Your task to perform on an android device: Search for pizza restaurants on Maps Image 0: 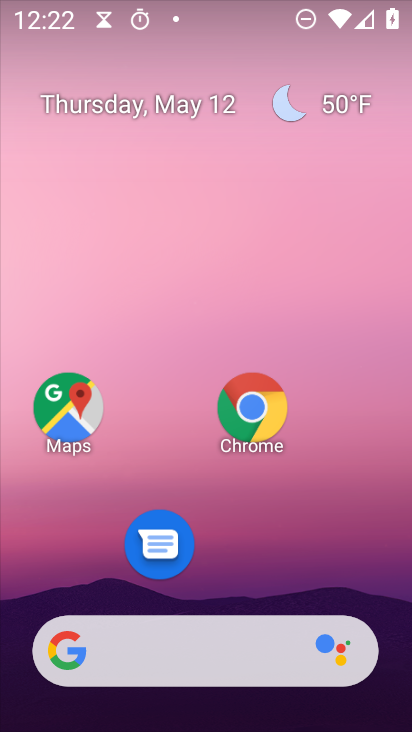
Step 0: click (67, 382)
Your task to perform on an android device: Search for pizza restaurants on Maps Image 1: 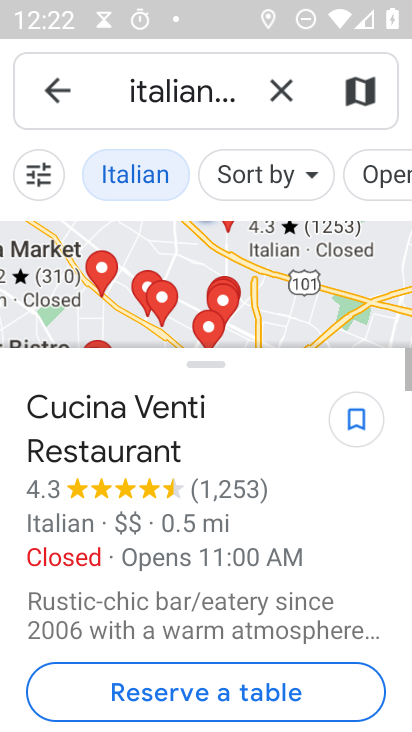
Step 1: click (274, 71)
Your task to perform on an android device: Search for pizza restaurants on Maps Image 2: 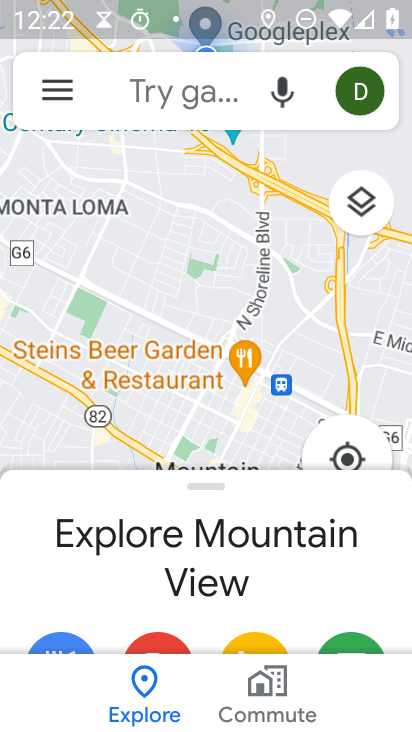
Step 2: click (223, 109)
Your task to perform on an android device: Search for pizza restaurants on Maps Image 3: 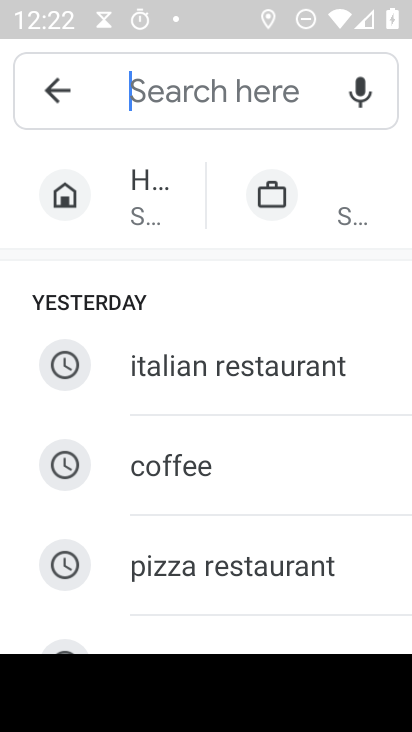
Step 3: click (278, 582)
Your task to perform on an android device: Search for pizza restaurants on Maps Image 4: 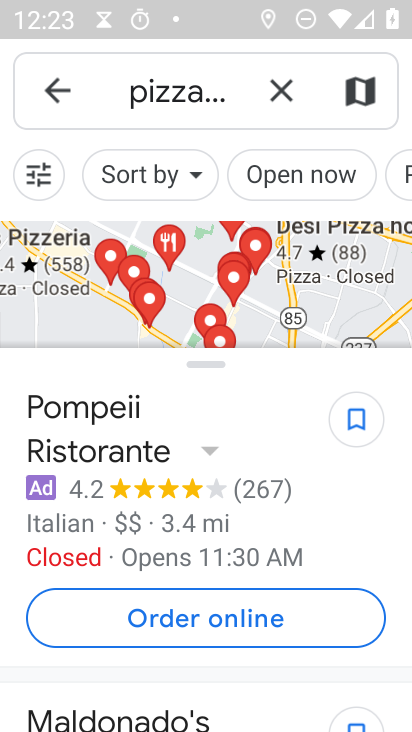
Step 4: task complete